Your task to perform on an android device: Open my contact list Image 0: 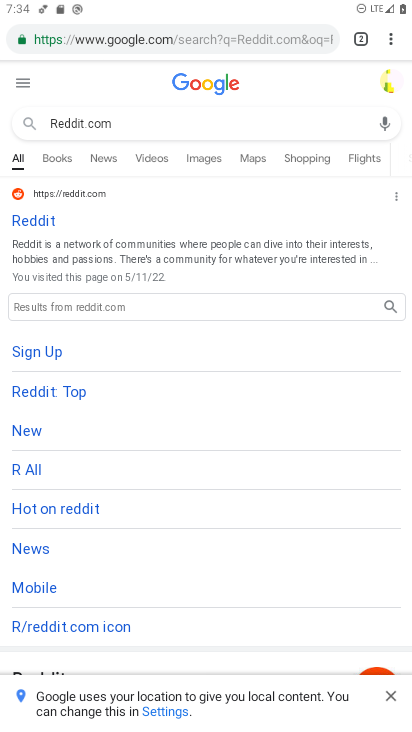
Step 0: press home button
Your task to perform on an android device: Open my contact list Image 1: 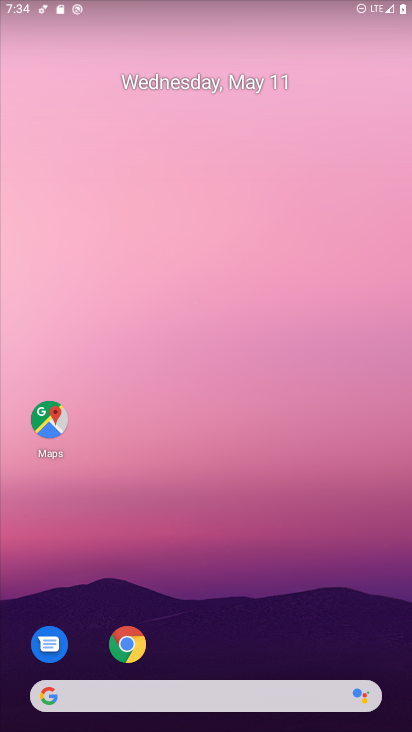
Step 1: drag from (244, 576) to (140, 103)
Your task to perform on an android device: Open my contact list Image 2: 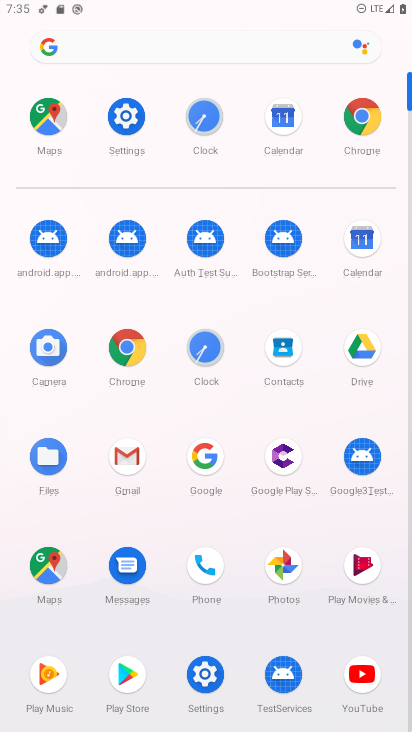
Step 2: click (280, 347)
Your task to perform on an android device: Open my contact list Image 3: 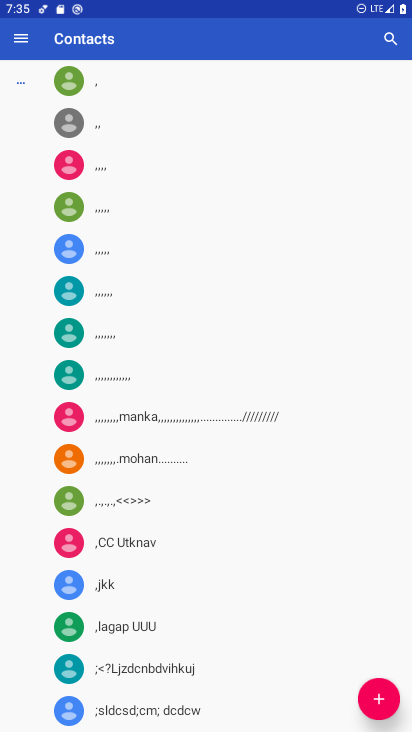
Step 3: task complete